Your task to perform on an android device: turn on priority inbox in the gmail app Image 0: 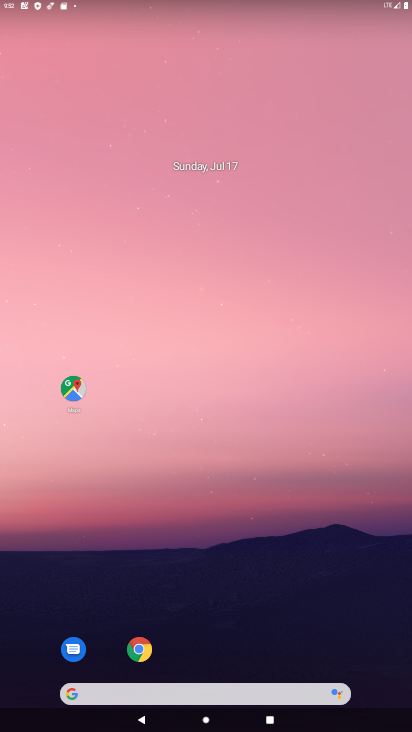
Step 0: drag from (154, 663) to (179, 173)
Your task to perform on an android device: turn on priority inbox in the gmail app Image 1: 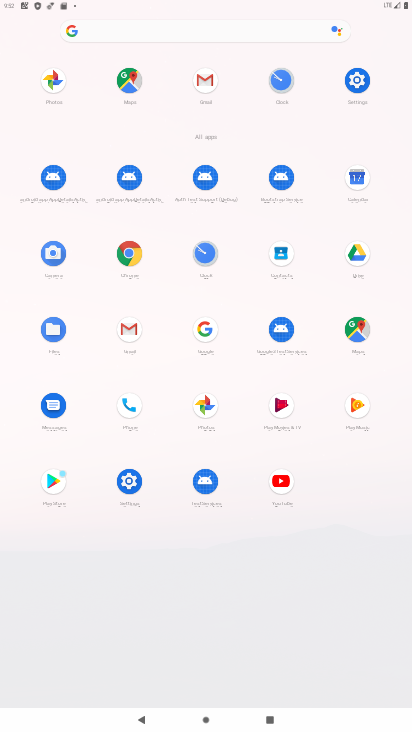
Step 1: click (129, 323)
Your task to perform on an android device: turn on priority inbox in the gmail app Image 2: 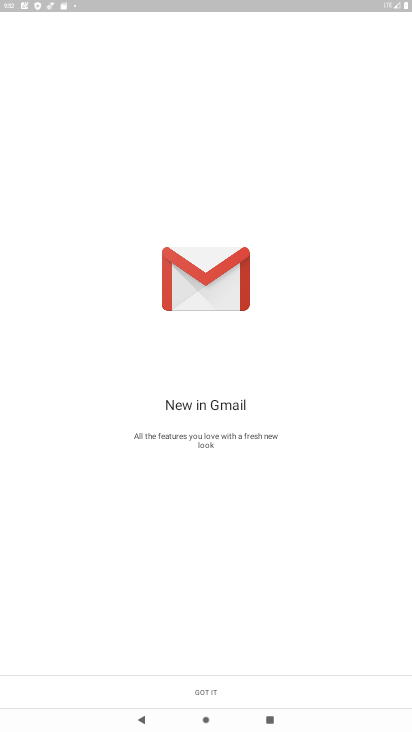
Step 2: click (246, 693)
Your task to perform on an android device: turn on priority inbox in the gmail app Image 3: 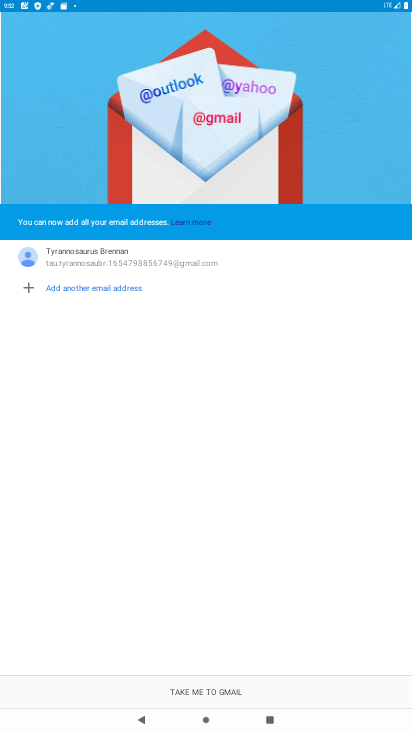
Step 3: click (246, 693)
Your task to perform on an android device: turn on priority inbox in the gmail app Image 4: 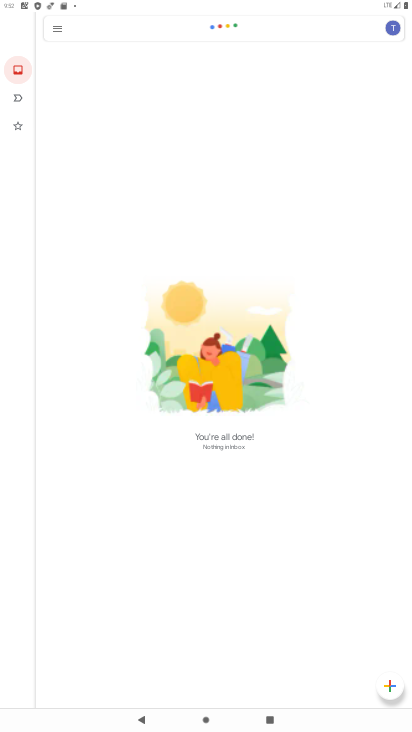
Step 4: click (25, 29)
Your task to perform on an android device: turn on priority inbox in the gmail app Image 5: 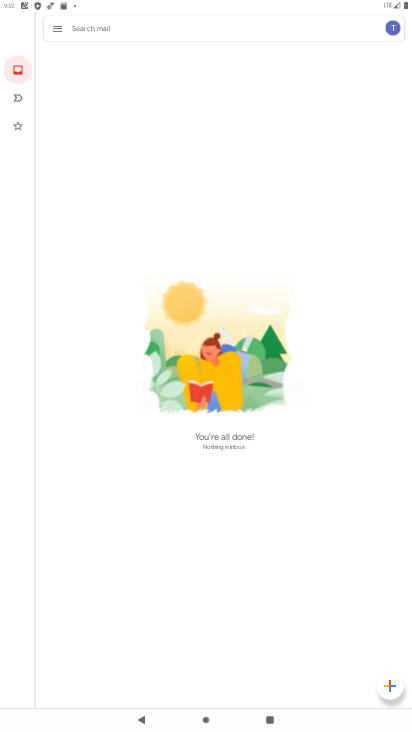
Step 5: click (61, 29)
Your task to perform on an android device: turn on priority inbox in the gmail app Image 6: 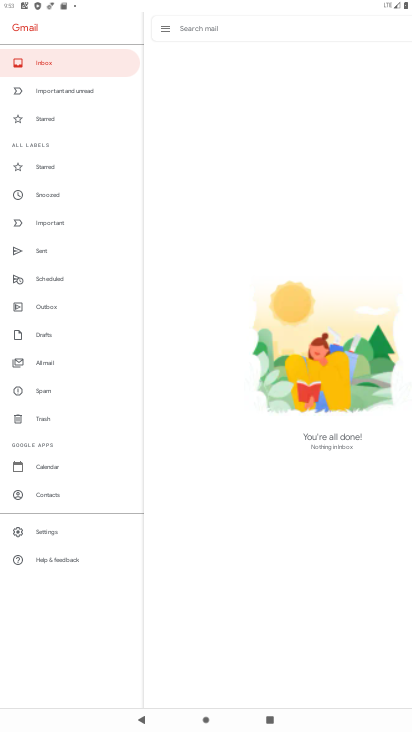
Step 6: click (67, 534)
Your task to perform on an android device: turn on priority inbox in the gmail app Image 7: 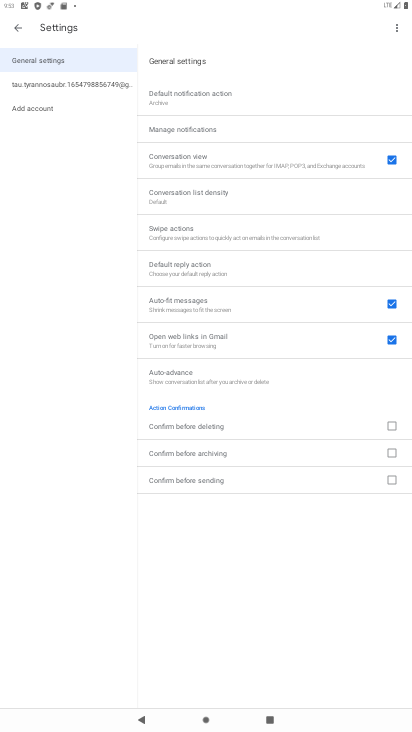
Step 7: click (95, 89)
Your task to perform on an android device: turn on priority inbox in the gmail app Image 8: 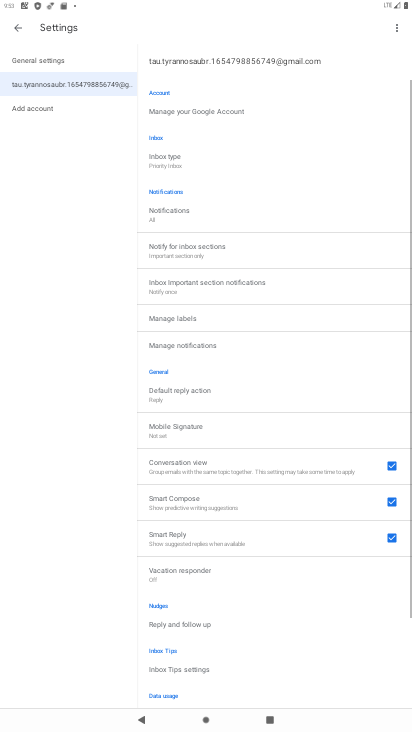
Step 8: click (184, 164)
Your task to perform on an android device: turn on priority inbox in the gmail app Image 9: 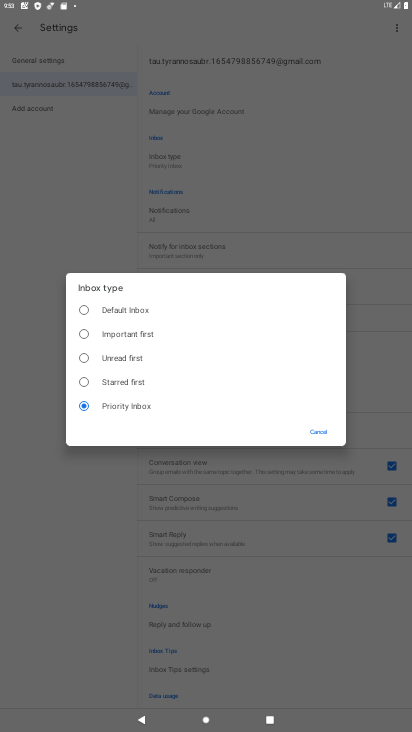
Step 9: task complete